Your task to perform on an android device: turn on bluetooth scan Image 0: 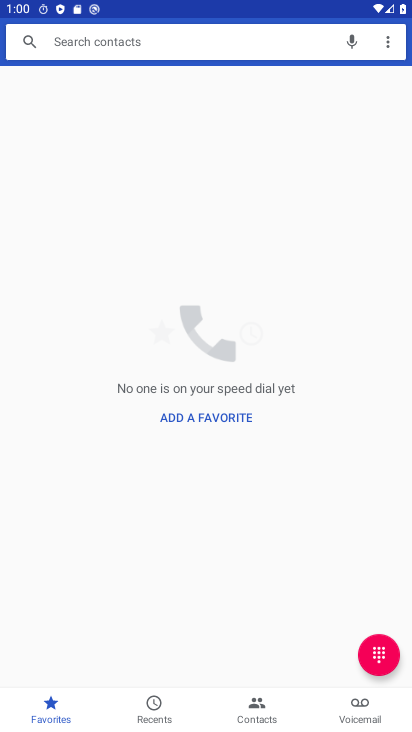
Step 0: press home button
Your task to perform on an android device: turn on bluetooth scan Image 1: 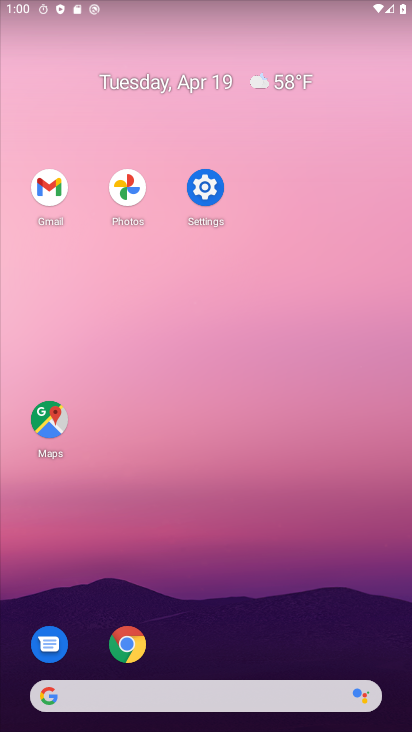
Step 1: click (210, 185)
Your task to perform on an android device: turn on bluetooth scan Image 2: 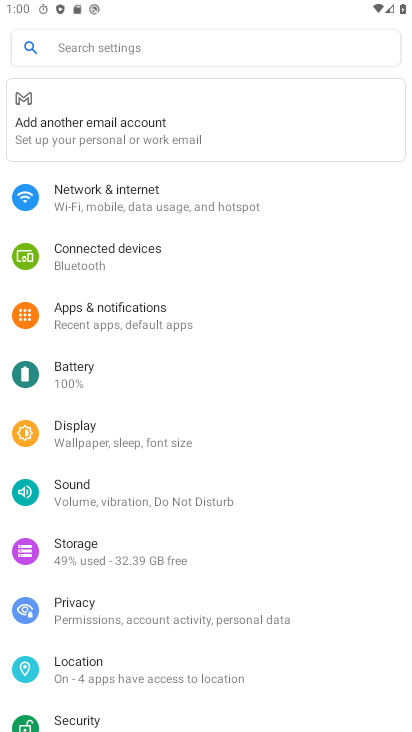
Step 2: click (134, 674)
Your task to perform on an android device: turn on bluetooth scan Image 3: 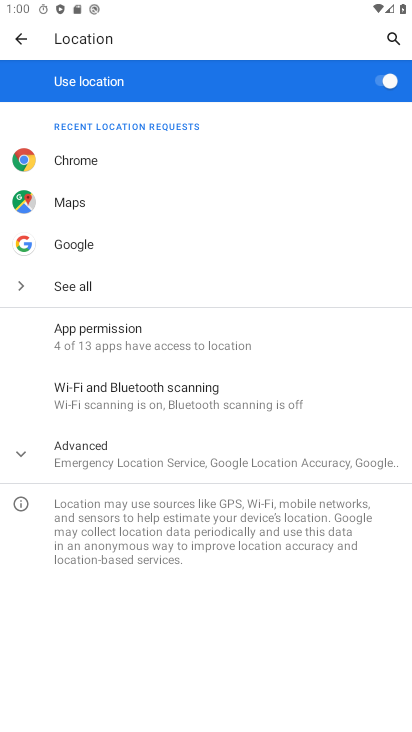
Step 3: click (161, 404)
Your task to perform on an android device: turn on bluetooth scan Image 4: 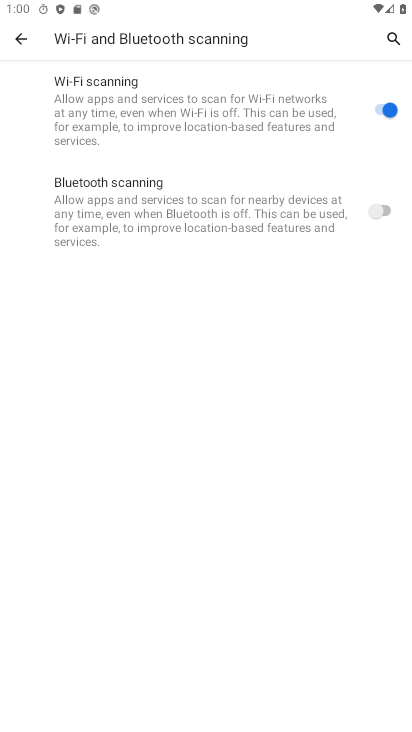
Step 4: click (382, 216)
Your task to perform on an android device: turn on bluetooth scan Image 5: 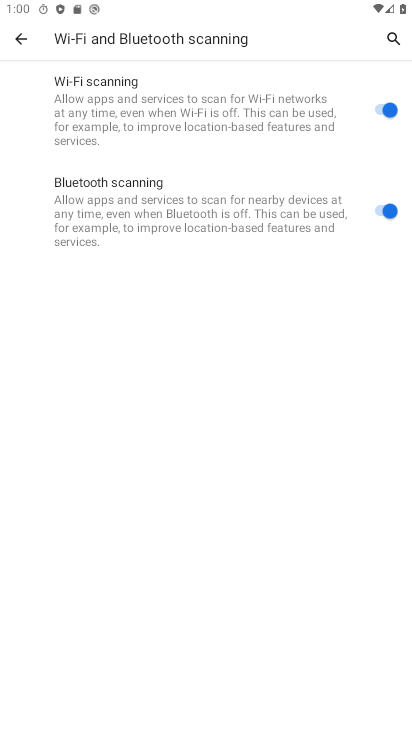
Step 5: task complete